Your task to perform on an android device: open a new tab in the chrome app Image 0: 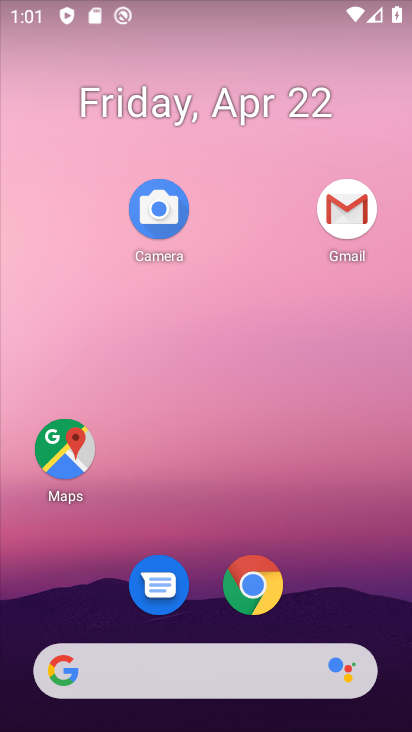
Step 0: click (258, 579)
Your task to perform on an android device: open a new tab in the chrome app Image 1: 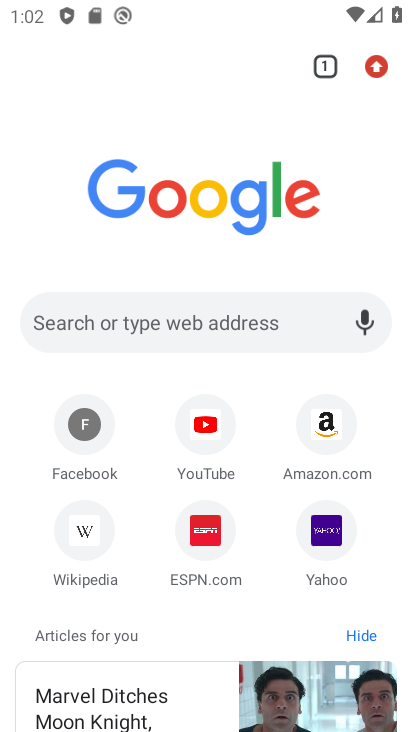
Step 1: task complete